Your task to perform on an android device: install app "Move to iOS" Image 0: 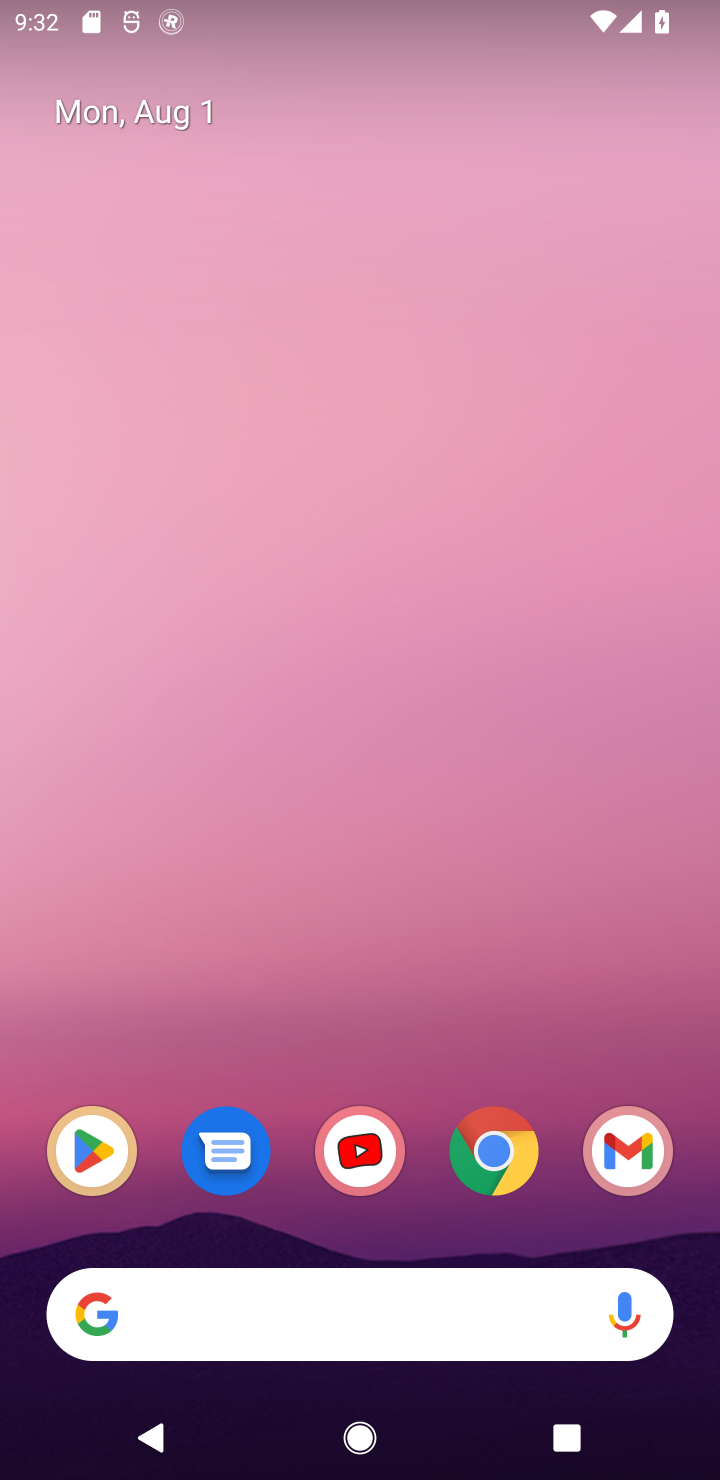
Step 0: click (91, 1154)
Your task to perform on an android device: install app "Move to iOS" Image 1: 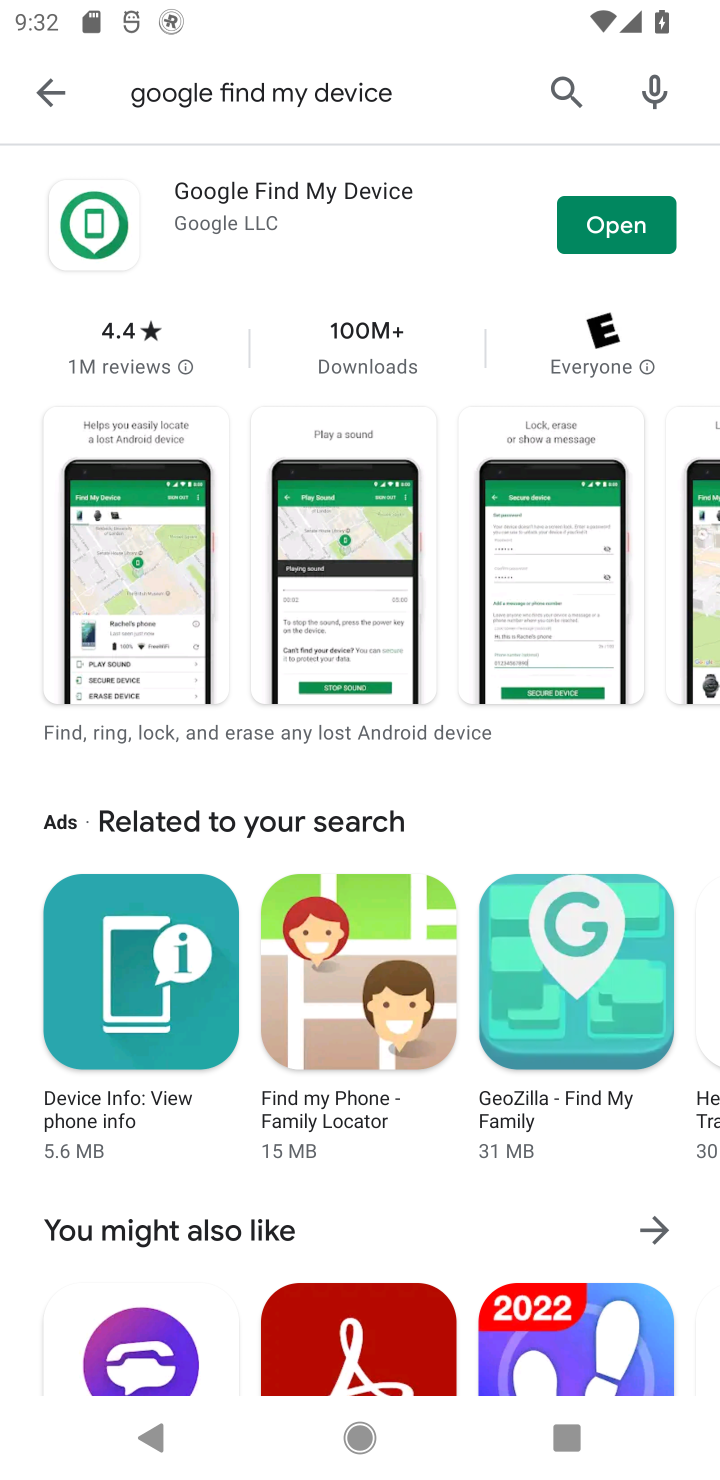
Step 1: click (565, 118)
Your task to perform on an android device: install app "Move to iOS" Image 2: 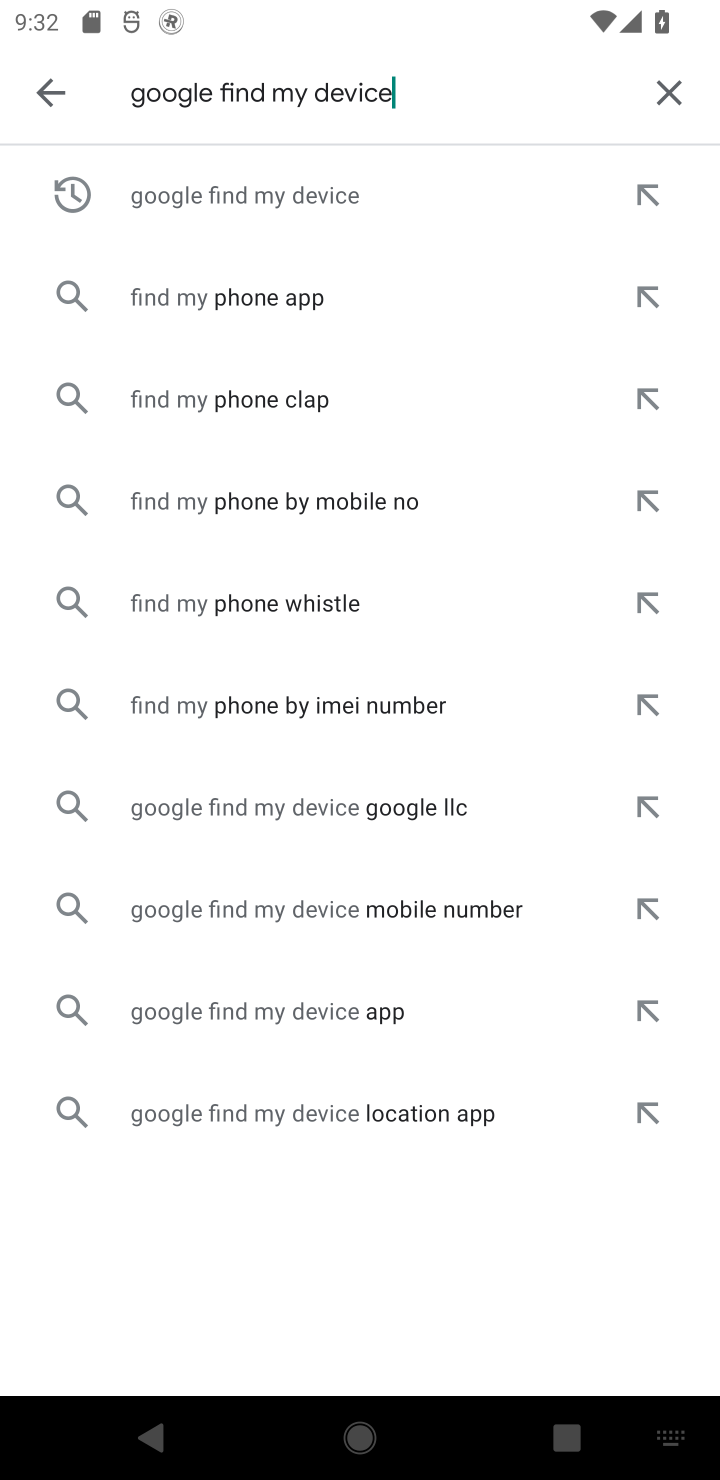
Step 2: click (665, 88)
Your task to perform on an android device: install app "Move to iOS" Image 3: 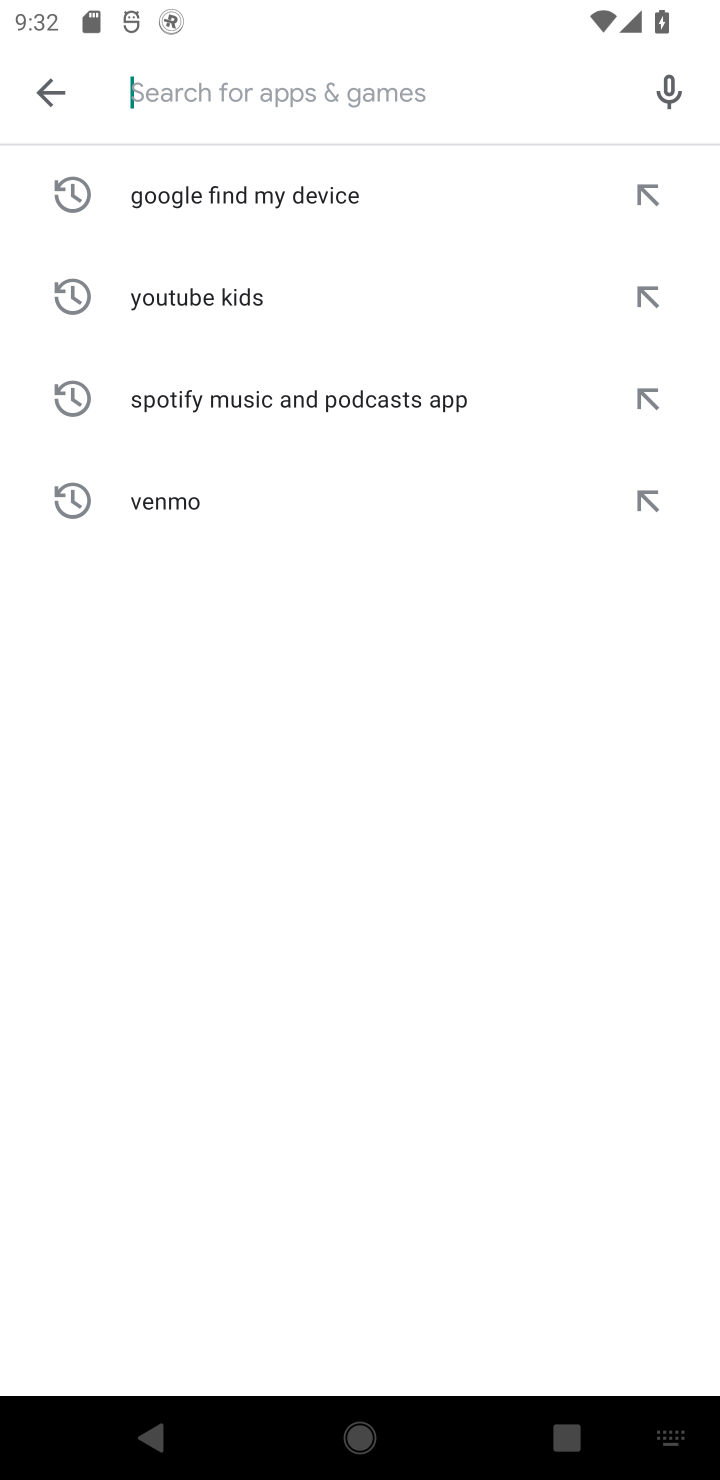
Step 3: type "Move to iOS"
Your task to perform on an android device: install app "Move to iOS" Image 4: 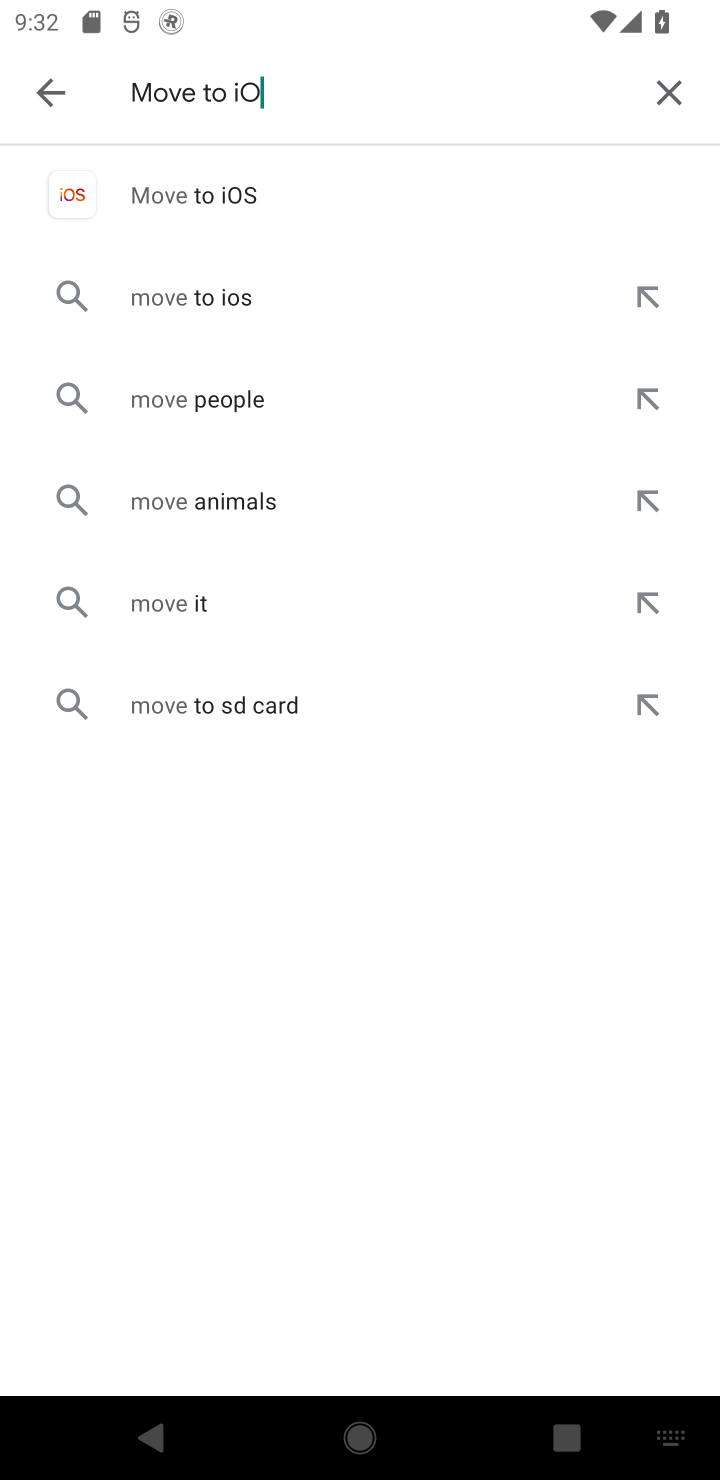
Step 4: type ""
Your task to perform on an android device: install app "Move to iOS" Image 5: 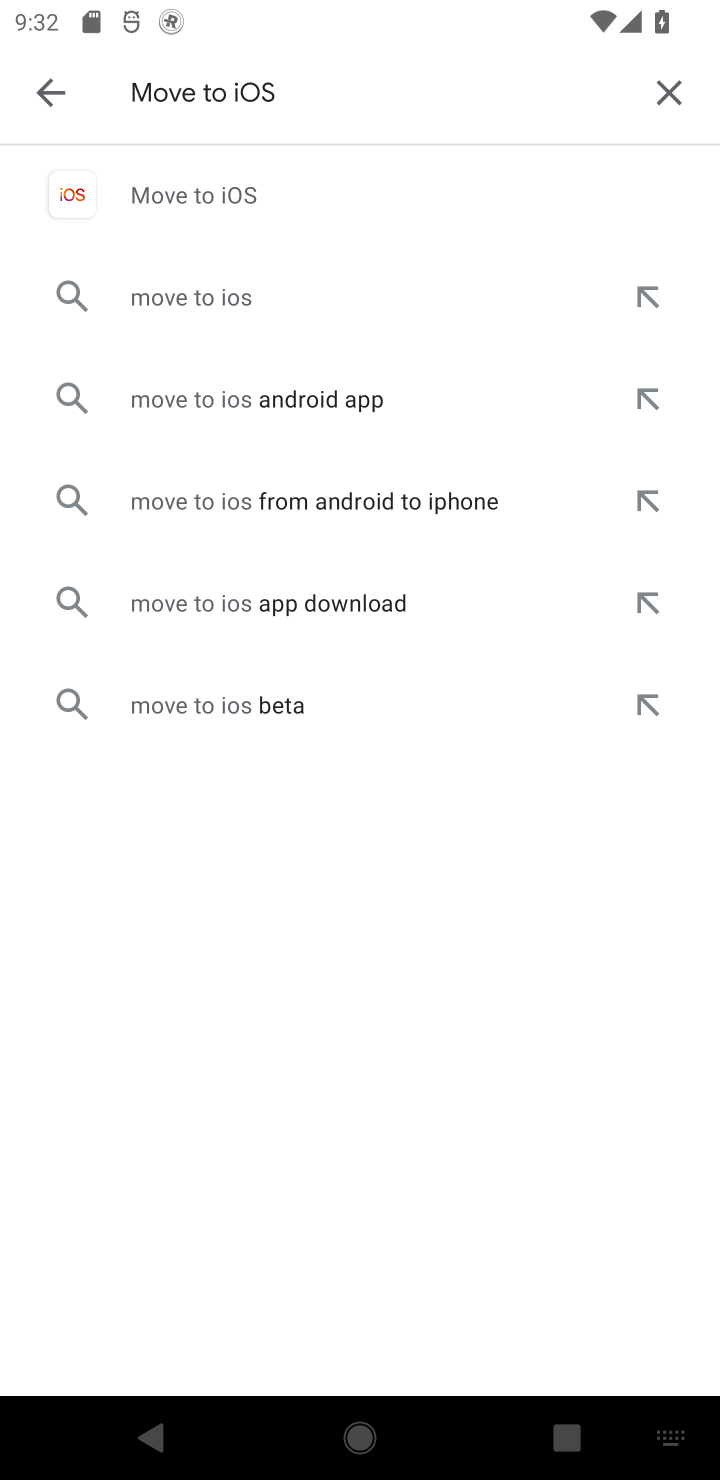
Step 5: click (150, 171)
Your task to perform on an android device: install app "Move to iOS" Image 6: 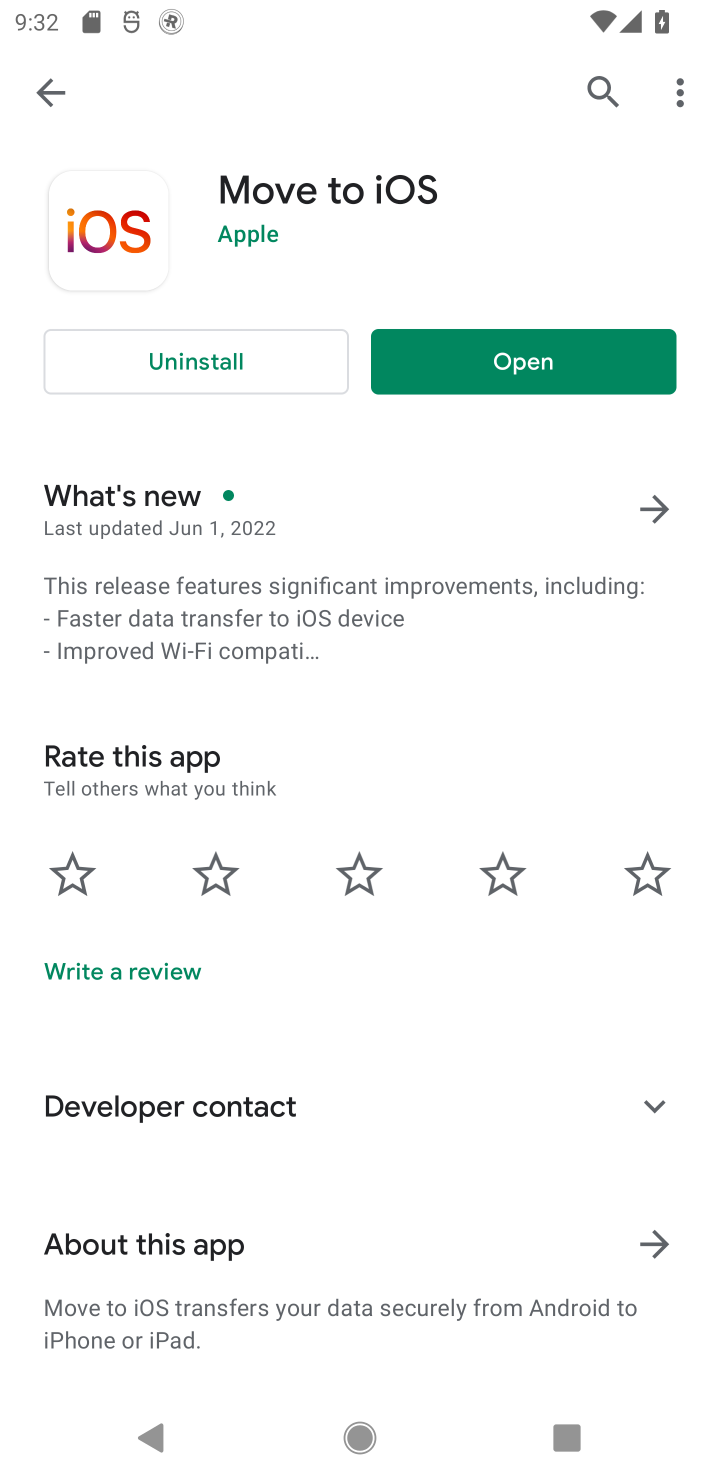
Step 6: task complete